Your task to perform on an android device: Open ESPN.com Image 0: 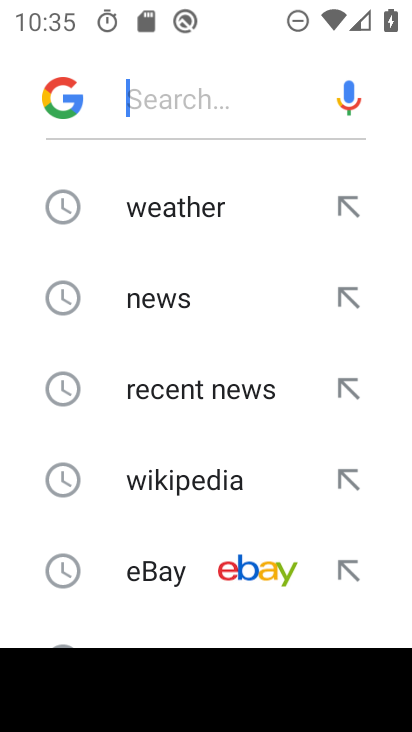
Step 0: press home button
Your task to perform on an android device: Open ESPN.com Image 1: 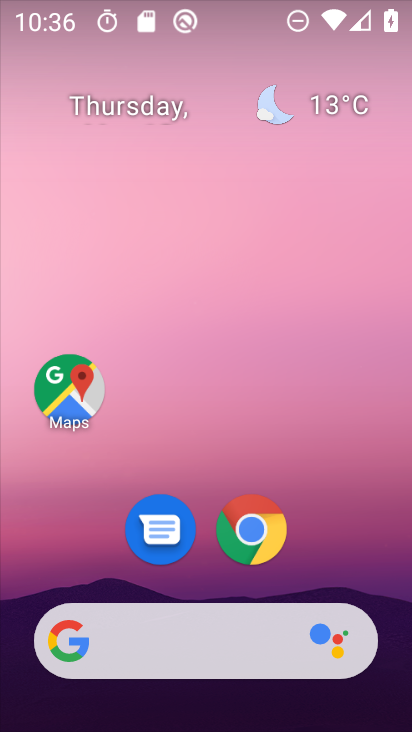
Step 1: click (273, 547)
Your task to perform on an android device: Open ESPN.com Image 2: 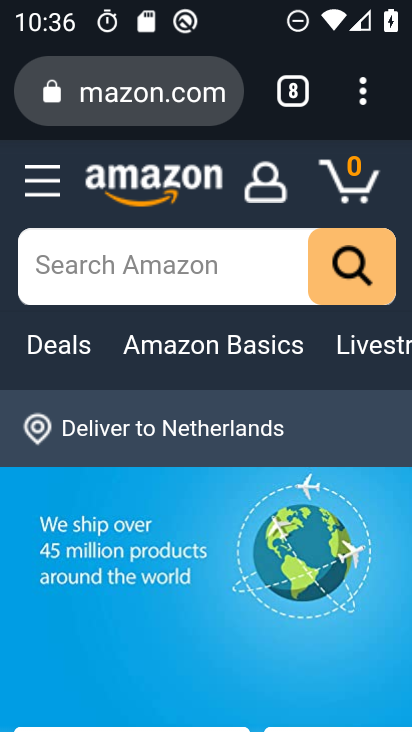
Step 2: click (294, 91)
Your task to perform on an android device: Open ESPN.com Image 3: 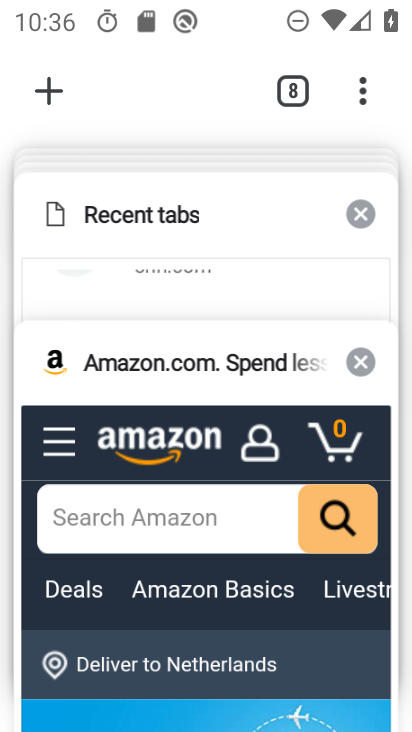
Step 3: drag from (216, 246) to (177, 531)
Your task to perform on an android device: Open ESPN.com Image 4: 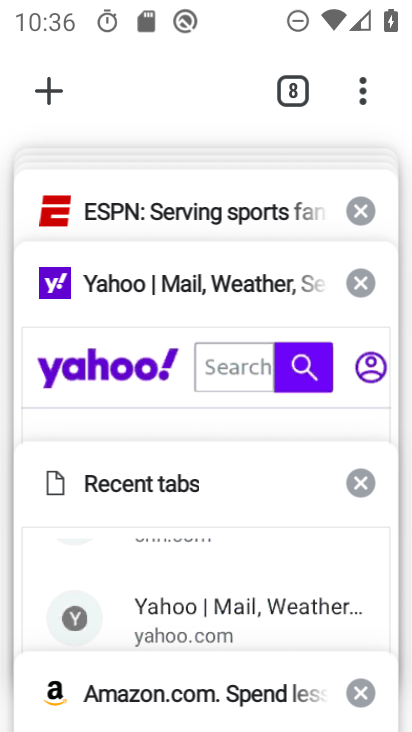
Step 4: click (224, 206)
Your task to perform on an android device: Open ESPN.com Image 5: 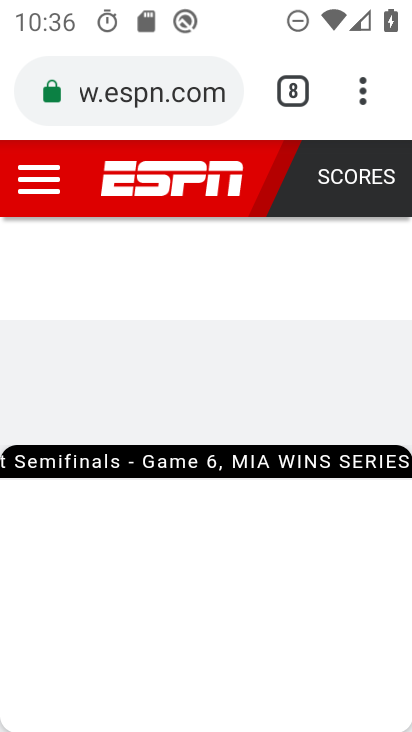
Step 5: task complete